Your task to perform on an android device: Turn on the flashlight Image 0: 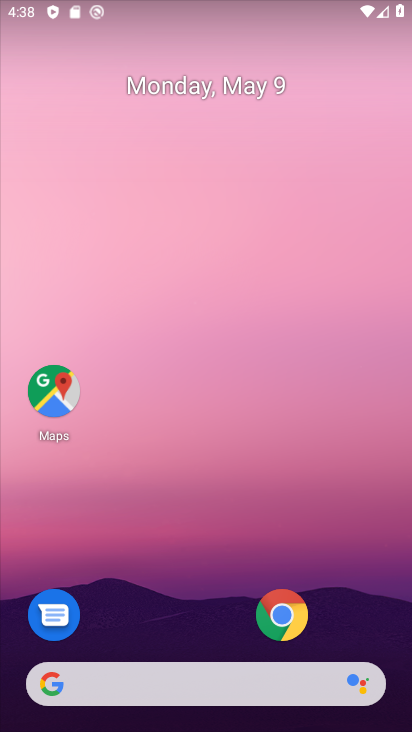
Step 0: drag from (250, 246) to (216, 434)
Your task to perform on an android device: Turn on the flashlight Image 1: 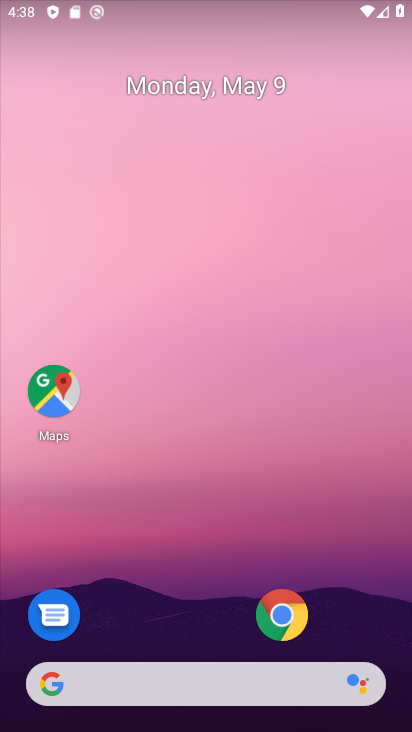
Step 1: drag from (282, 7) to (242, 451)
Your task to perform on an android device: Turn on the flashlight Image 2: 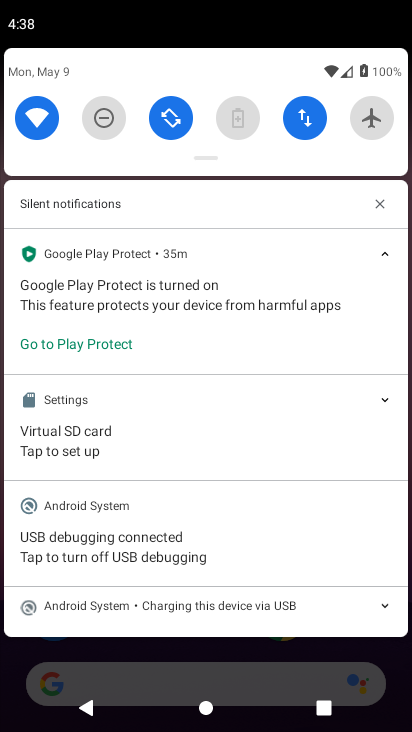
Step 2: drag from (257, 116) to (208, 470)
Your task to perform on an android device: Turn on the flashlight Image 3: 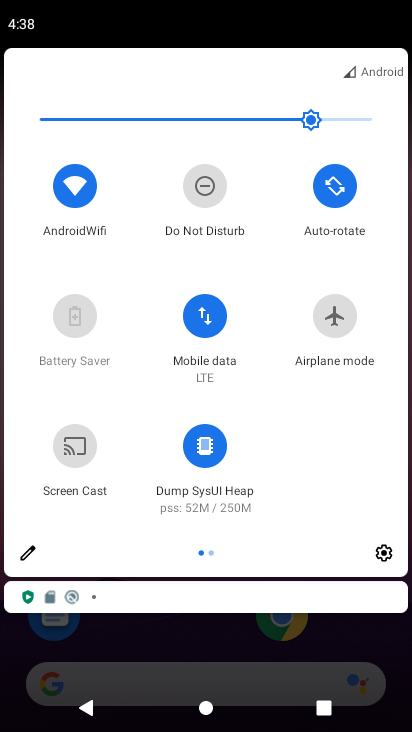
Step 3: drag from (357, 330) to (1, 317)
Your task to perform on an android device: Turn on the flashlight Image 4: 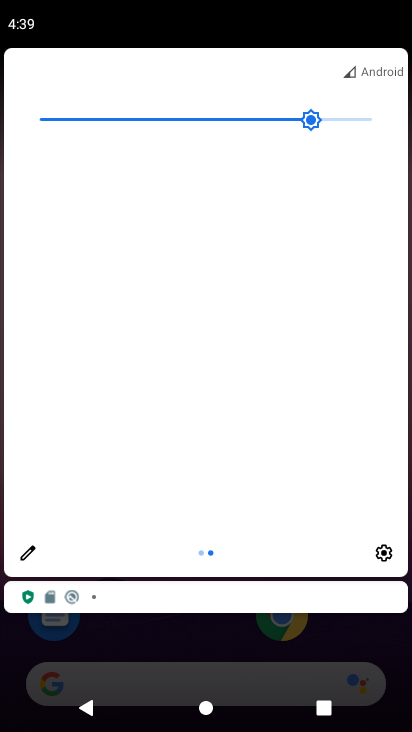
Step 4: click (29, 546)
Your task to perform on an android device: Turn on the flashlight Image 5: 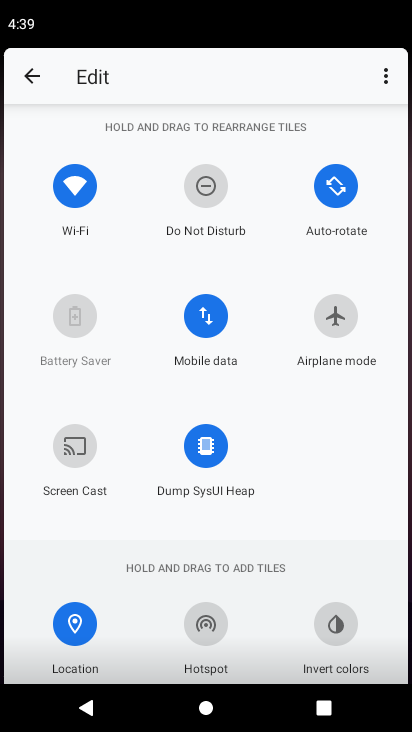
Step 5: task complete